Your task to perform on an android device: move an email to a new category in the gmail app Image 0: 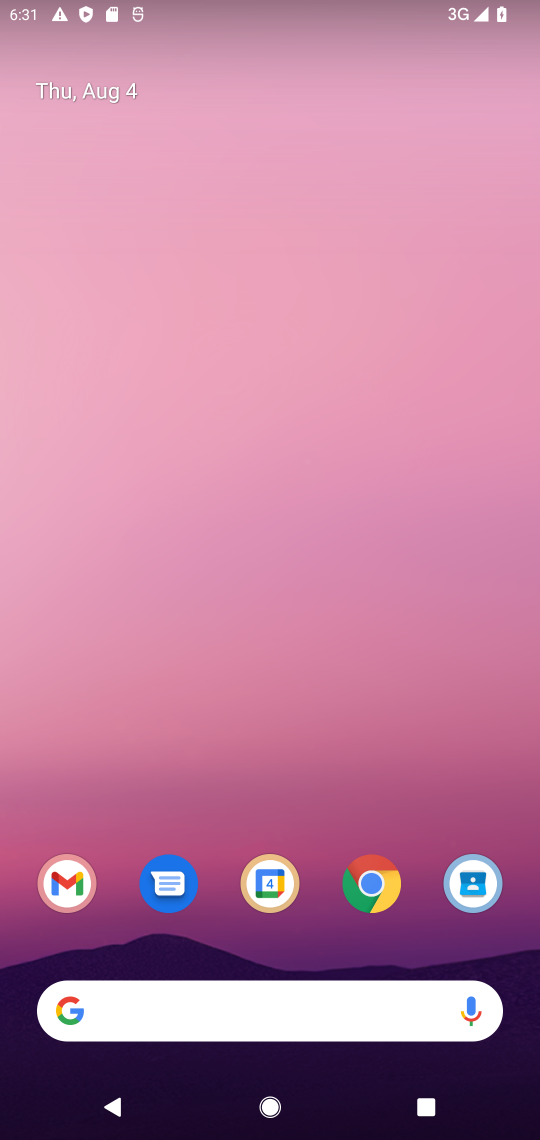
Step 0: drag from (405, 830) to (368, 124)
Your task to perform on an android device: move an email to a new category in the gmail app Image 1: 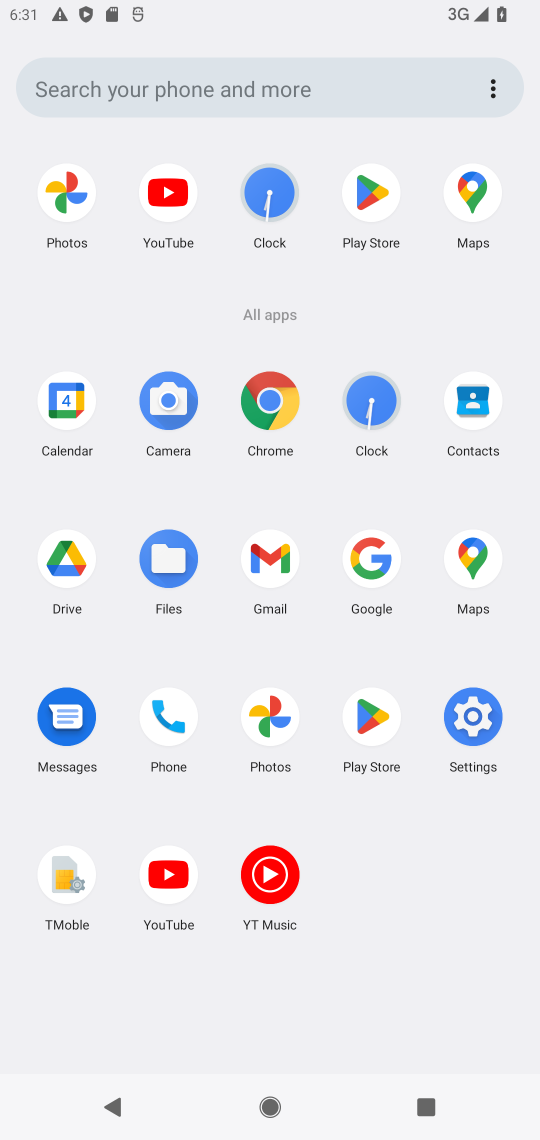
Step 1: click (265, 548)
Your task to perform on an android device: move an email to a new category in the gmail app Image 2: 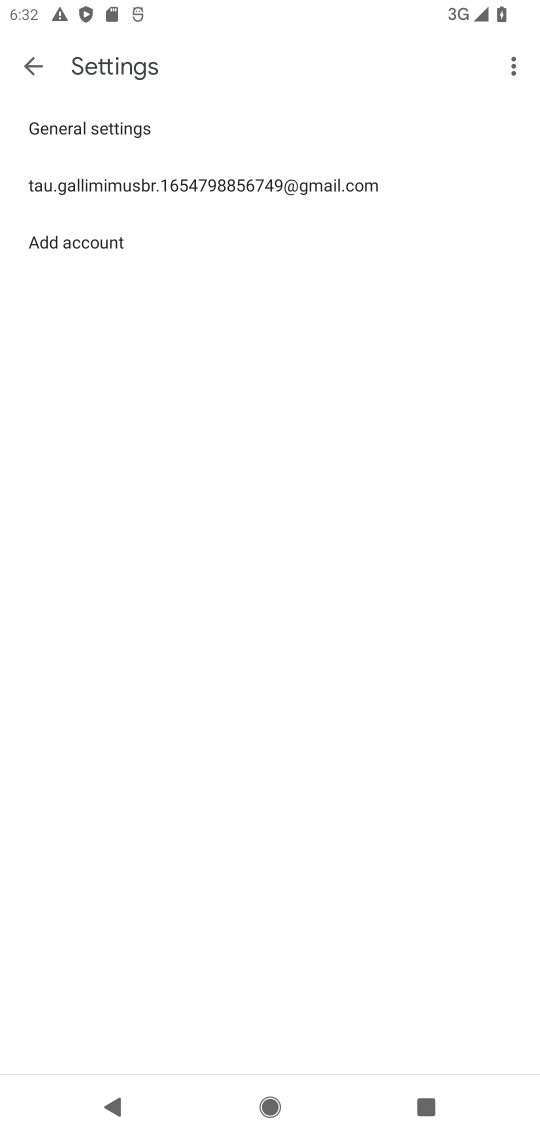
Step 2: click (34, 76)
Your task to perform on an android device: move an email to a new category in the gmail app Image 3: 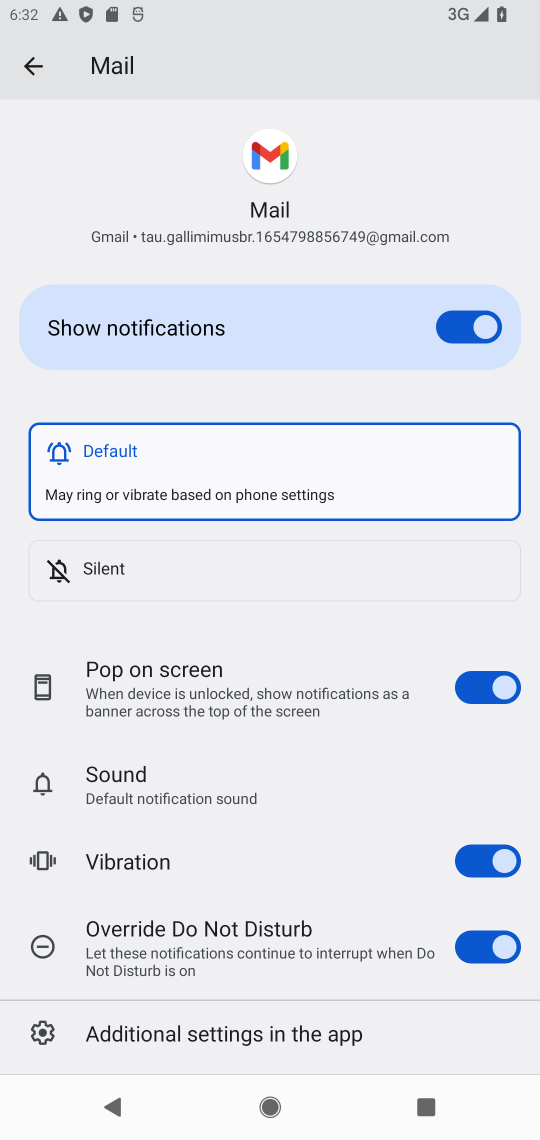
Step 3: click (30, 76)
Your task to perform on an android device: move an email to a new category in the gmail app Image 4: 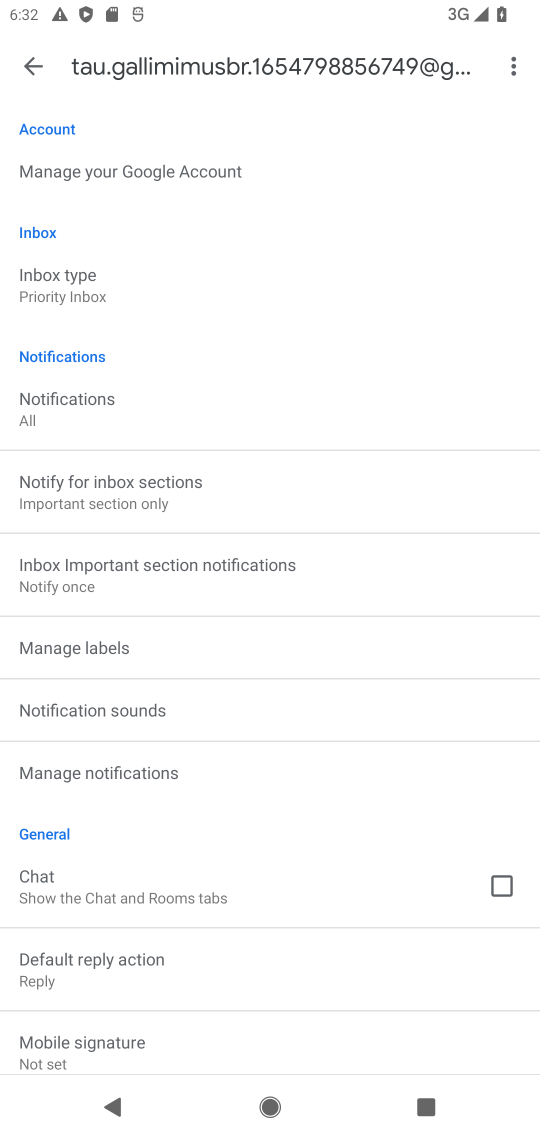
Step 4: click (28, 60)
Your task to perform on an android device: move an email to a new category in the gmail app Image 5: 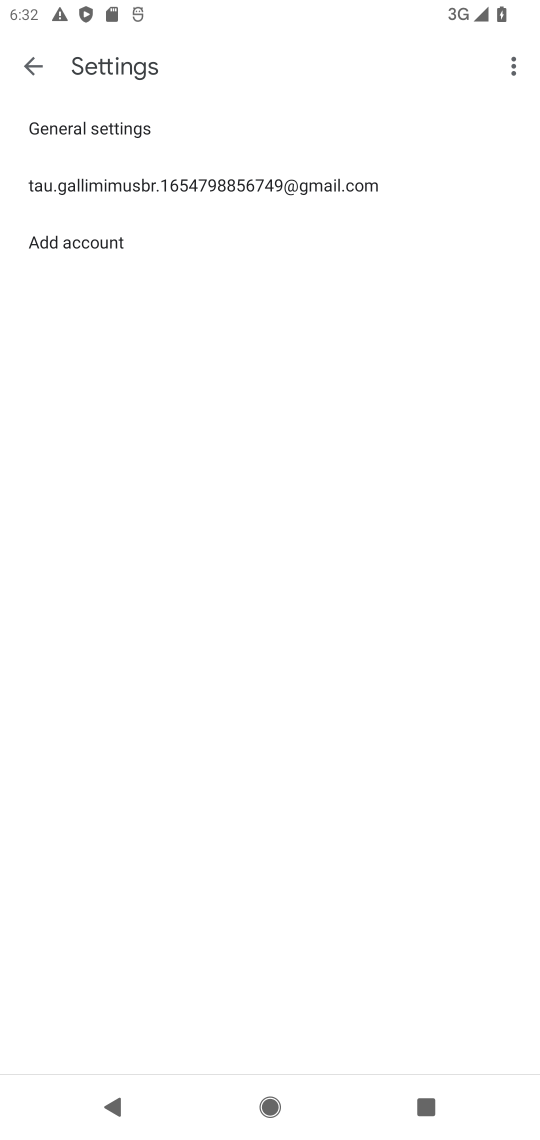
Step 5: click (30, 63)
Your task to perform on an android device: move an email to a new category in the gmail app Image 6: 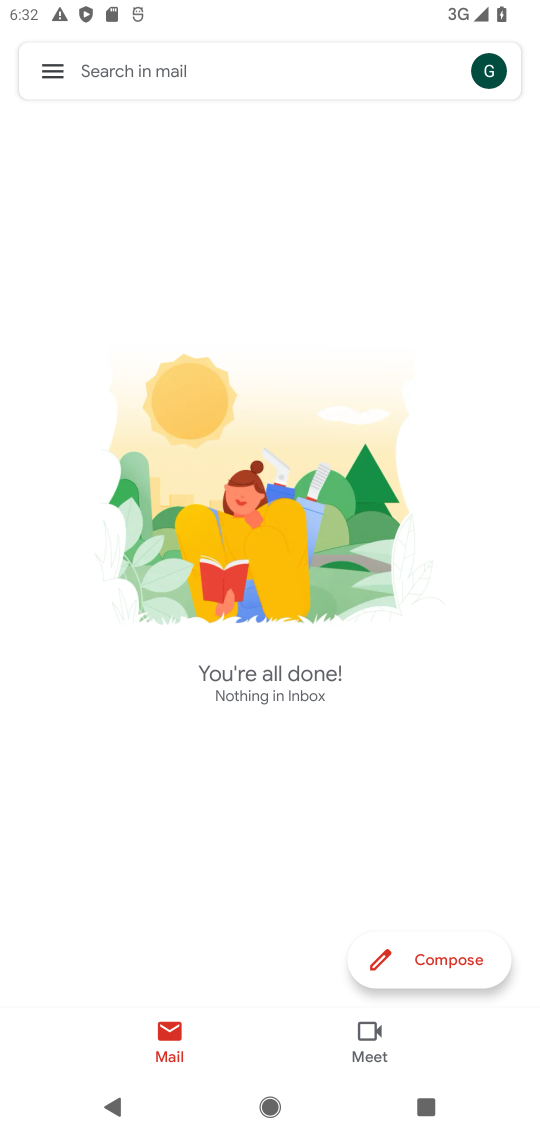
Step 6: task complete